Your task to perform on an android device: Open calendar and show me the third week of next month Image 0: 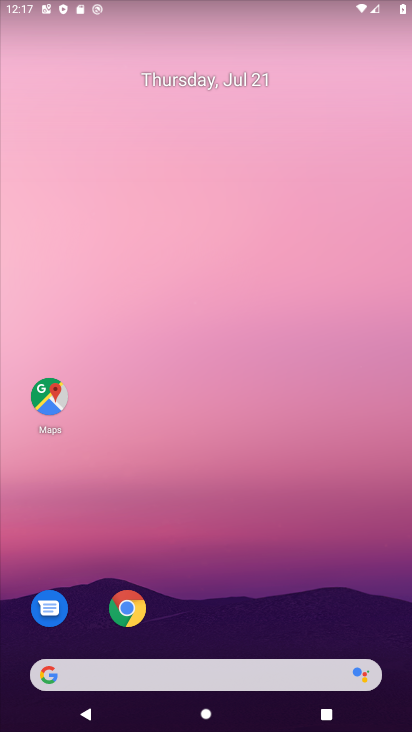
Step 0: drag from (341, 639) to (160, 45)
Your task to perform on an android device: Open calendar and show me the third week of next month Image 1: 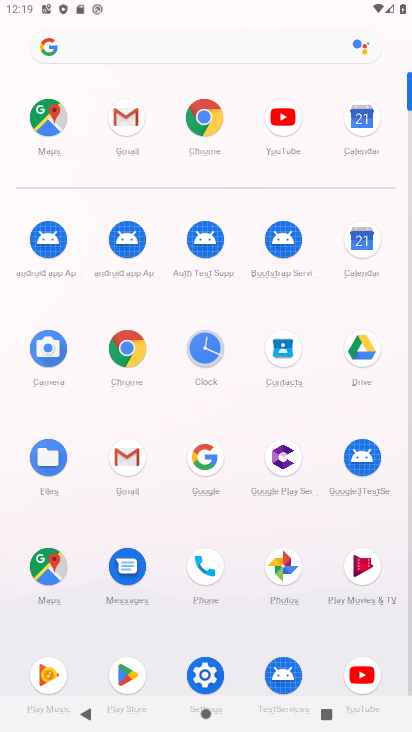
Step 1: click (361, 254)
Your task to perform on an android device: Open calendar and show me the third week of next month Image 2: 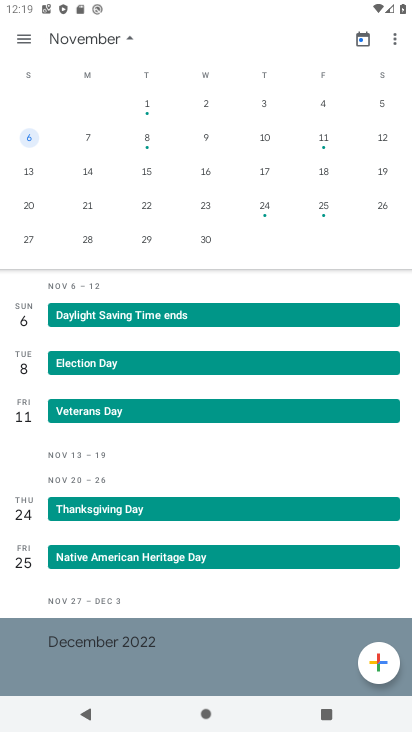
Step 2: drag from (354, 150) to (26, 186)
Your task to perform on an android device: Open calendar and show me the third week of next month Image 3: 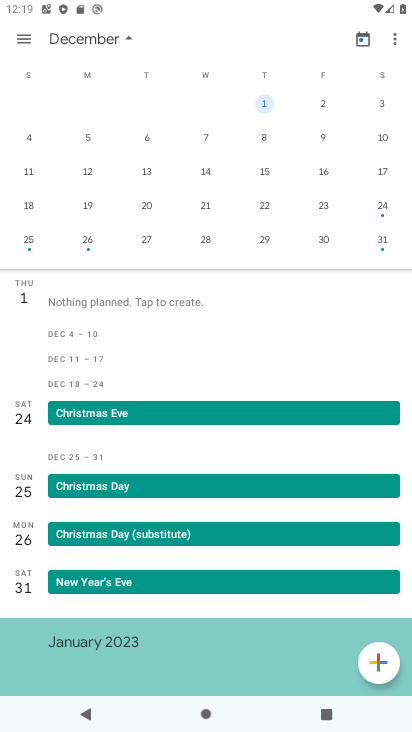
Step 3: click (30, 199)
Your task to perform on an android device: Open calendar and show me the third week of next month Image 4: 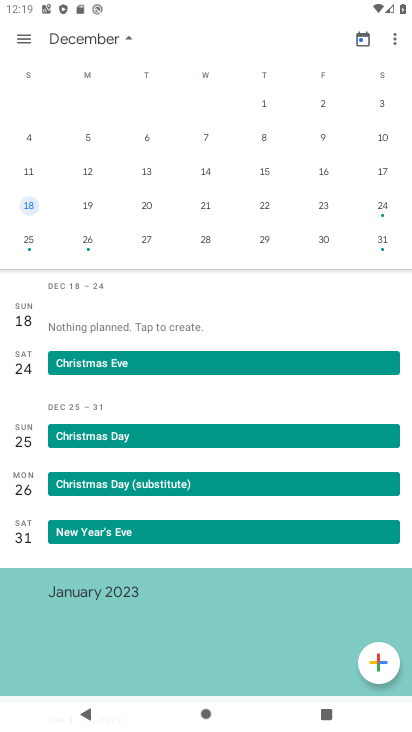
Step 4: task complete